Your task to perform on an android device: Open network settings Image 0: 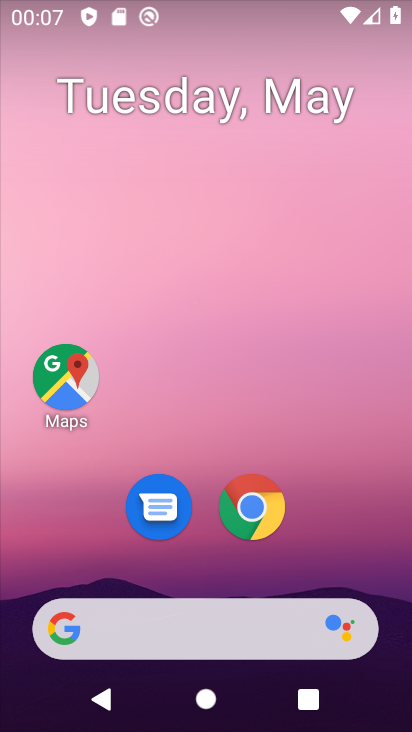
Step 0: drag from (210, 609) to (309, 242)
Your task to perform on an android device: Open network settings Image 1: 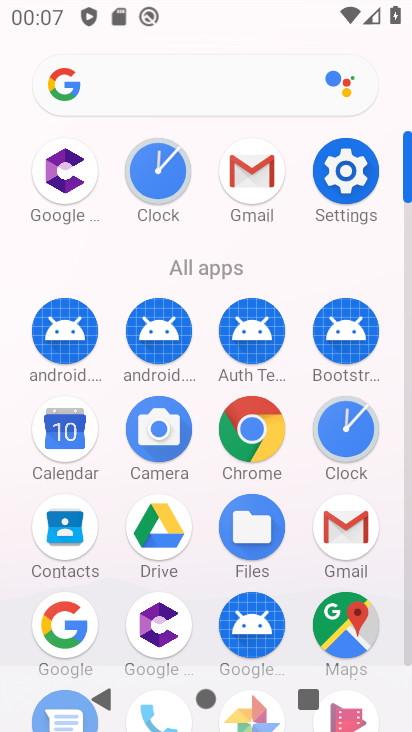
Step 1: click (358, 168)
Your task to perform on an android device: Open network settings Image 2: 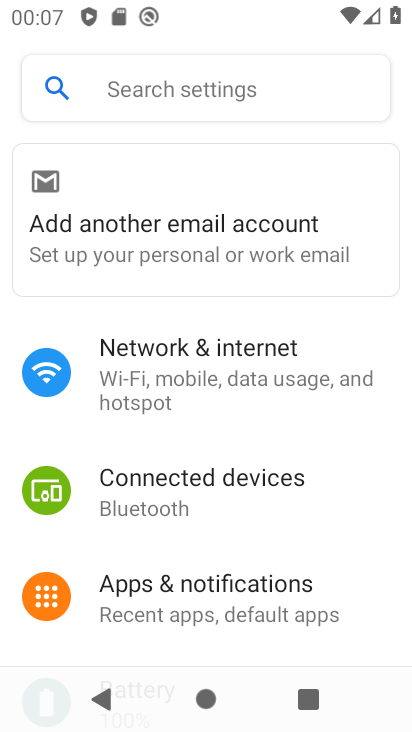
Step 2: click (178, 388)
Your task to perform on an android device: Open network settings Image 3: 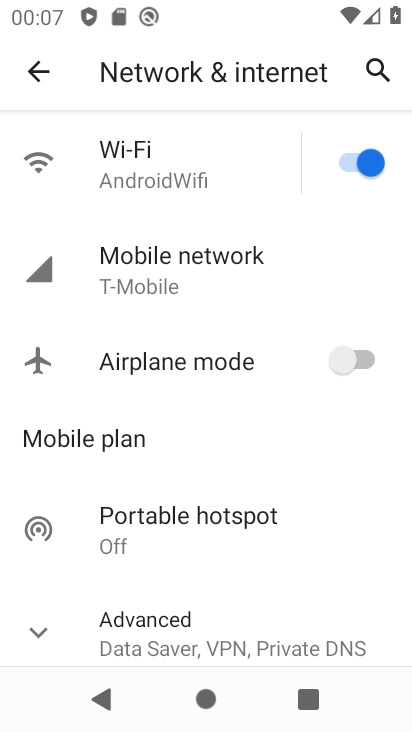
Step 3: click (134, 278)
Your task to perform on an android device: Open network settings Image 4: 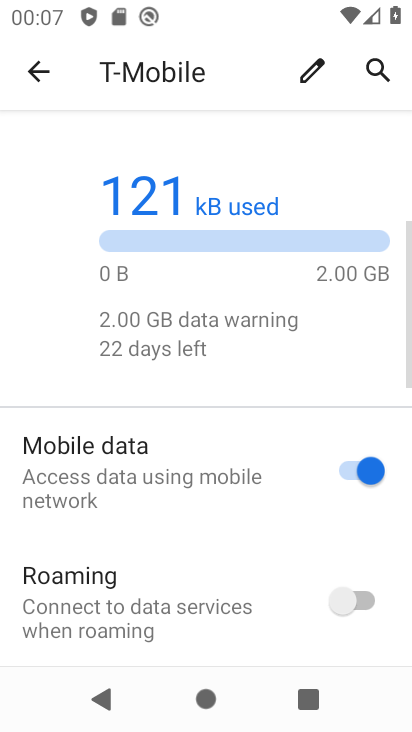
Step 4: drag from (163, 584) to (229, 196)
Your task to perform on an android device: Open network settings Image 5: 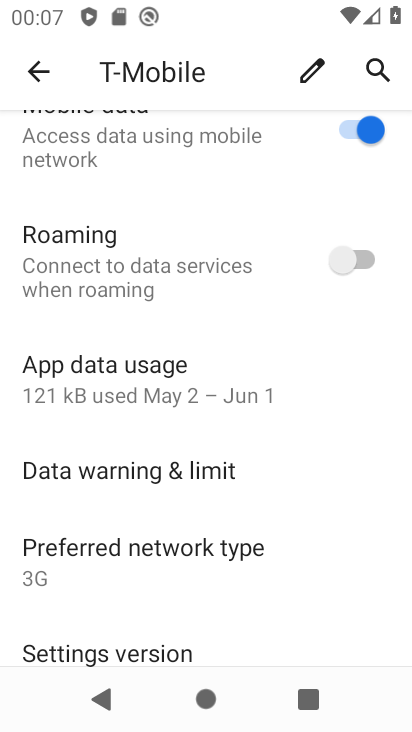
Step 5: drag from (168, 576) to (189, 220)
Your task to perform on an android device: Open network settings Image 6: 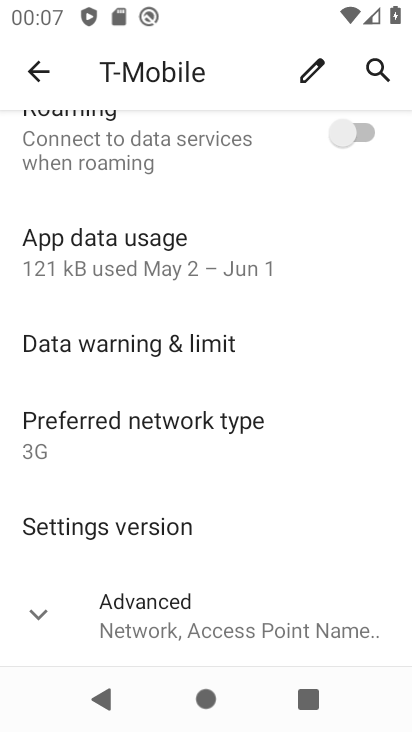
Step 6: click (141, 619)
Your task to perform on an android device: Open network settings Image 7: 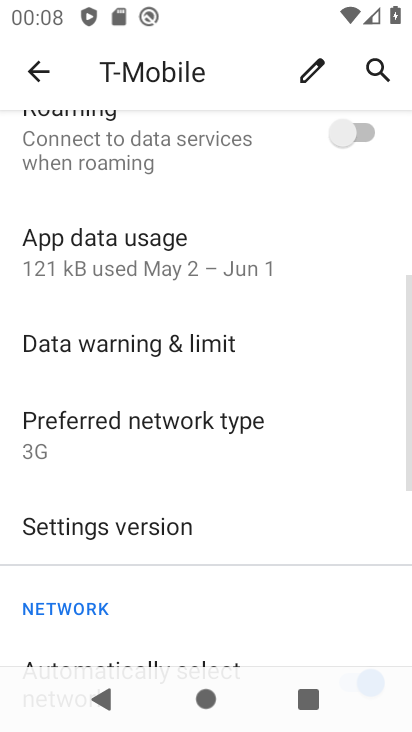
Step 7: task complete